Your task to perform on an android device: change text size in settings app Image 0: 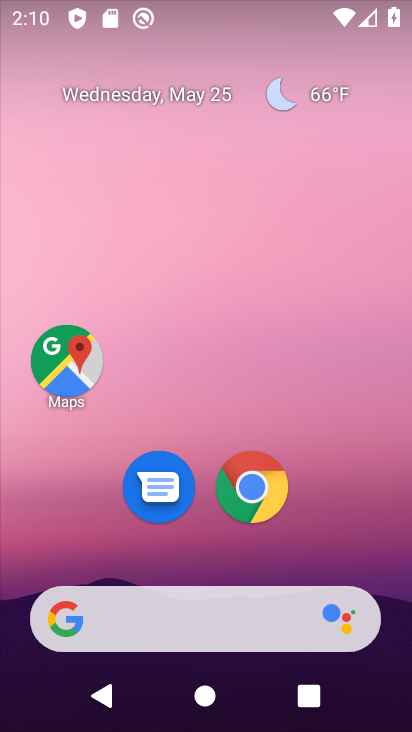
Step 0: drag from (273, 560) to (251, 126)
Your task to perform on an android device: change text size in settings app Image 1: 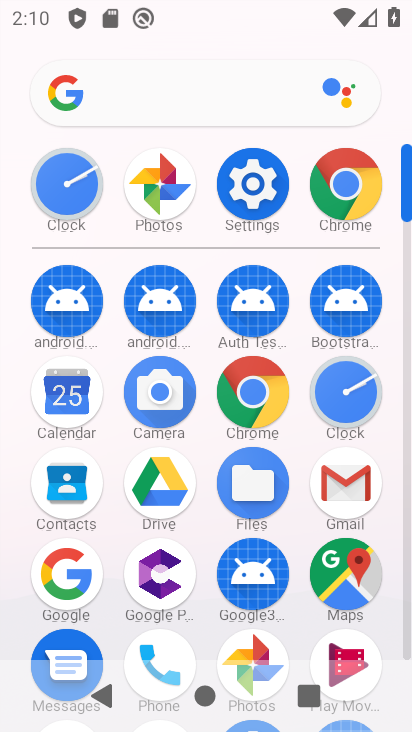
Step 1: click (256, 190)
Your task to perform on an android device: change text size in settings app Image 2: 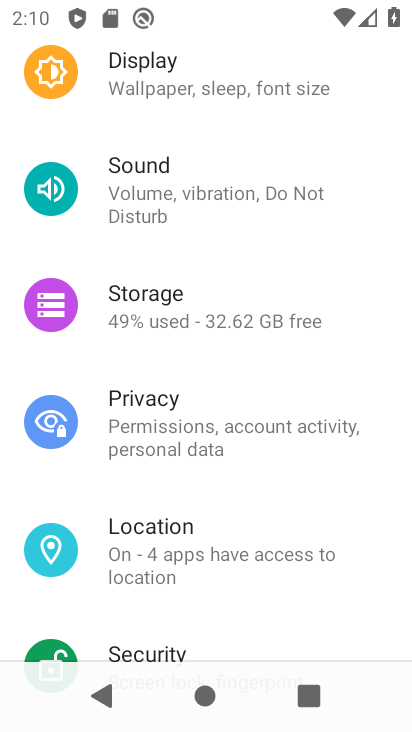
Step 2: click (146, 93)
Your task to perform on an android device: change text size in settings app Image 3: 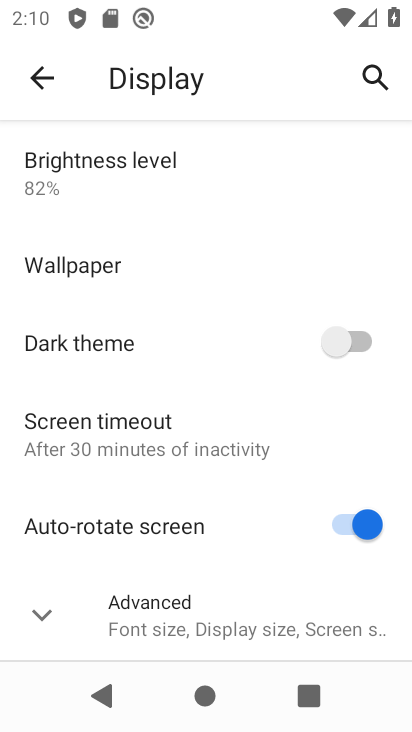
Step 3: click (193, 628)
Your task to perform on an android device: change text size in settings app Image 4: 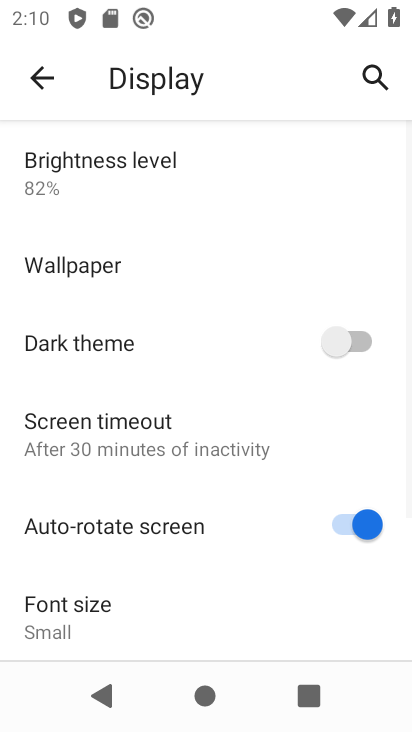
Step 4: click (113, 634)
Your task to perform on an android device: change text size in settings app Image 5: 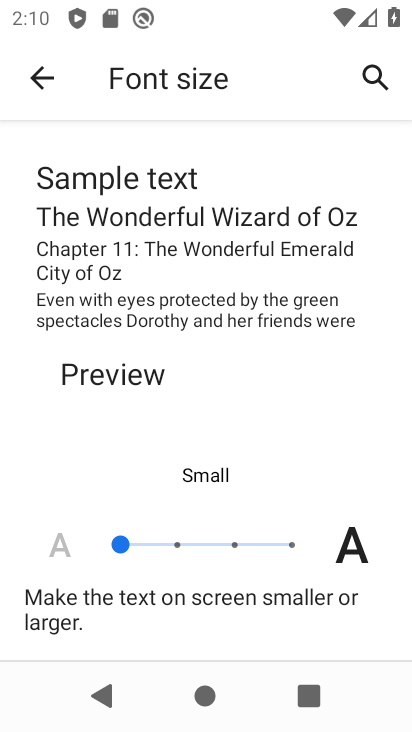
Step 5: click (169, 537)
Your task to perform on an android device: change text size in settings app Image 6: 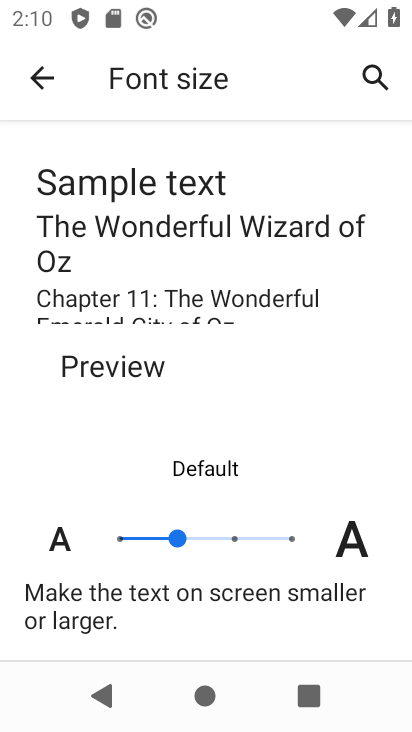
Step 6: task complete